Your task to perform on an android device: turn off notifications in google photos Image 0: 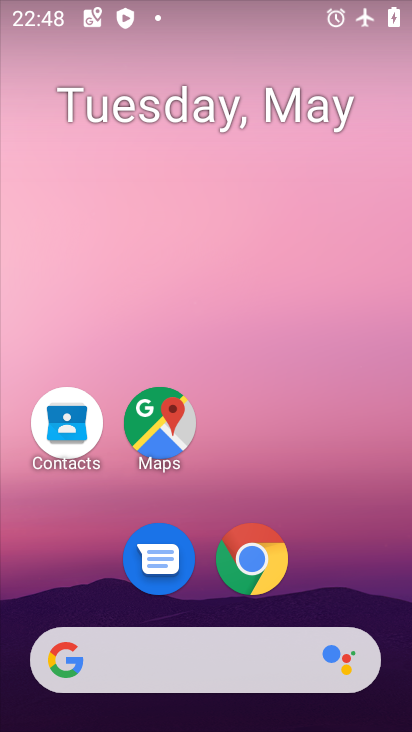
Step 0: drag from (355, 562) to (309, 76)
Your task to perform on an android device: turn off notifications in google photos Image 1: 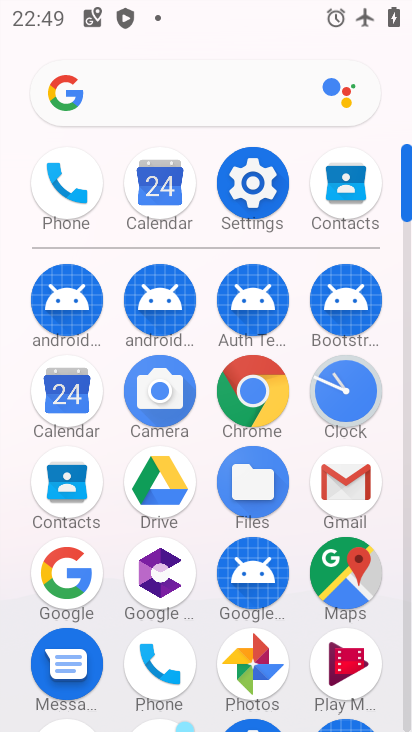
Step 1: click (257, 647)
Your task to perform on an android device: turn off notifications in google photos Image 2: 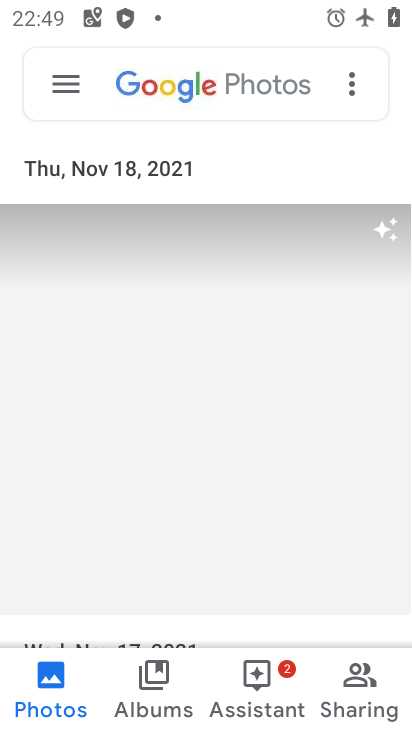
Step 2: task complete